Your task to perform on an android device: Set the phone to "Do not disturb". Image 0: 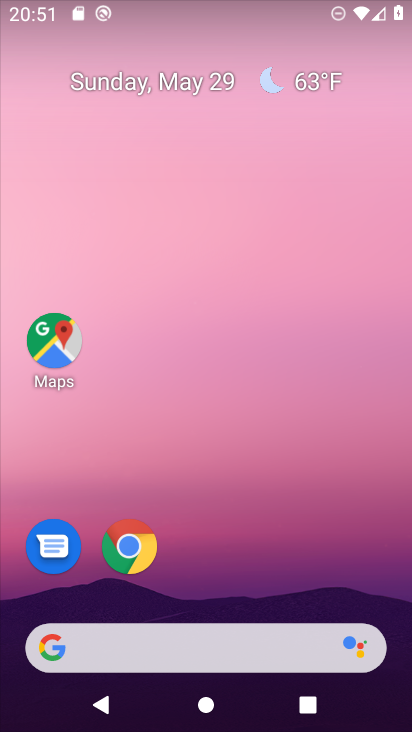
Step 0: press home button
Your task to perform on an android device: Set the phone to "Do not disturb". Image 1: 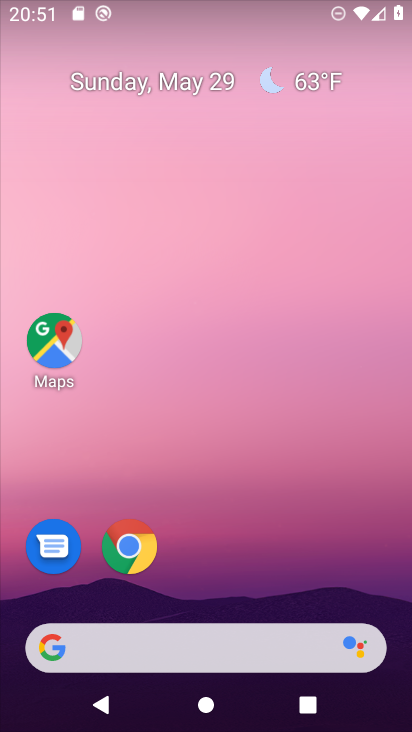
Step 1: drag from (220, 644) to (312, 186)
Your task to perform on an android device: Set the phone to "Do not disturb". Image 2: 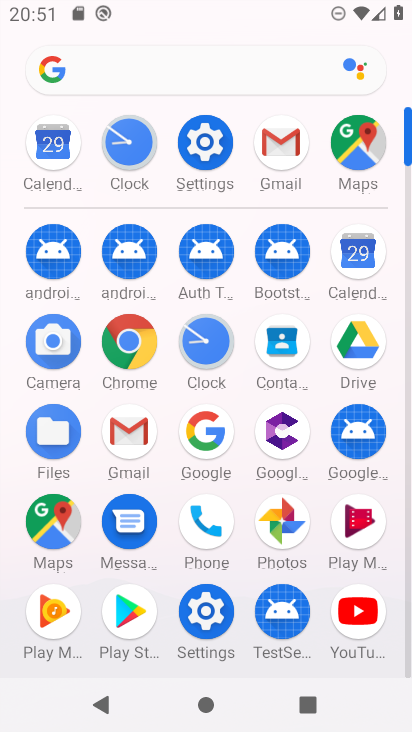
Step 2: click (213, 136)
Your task to perform on an android device: Set the phone to "Do not disturb". Image 3: 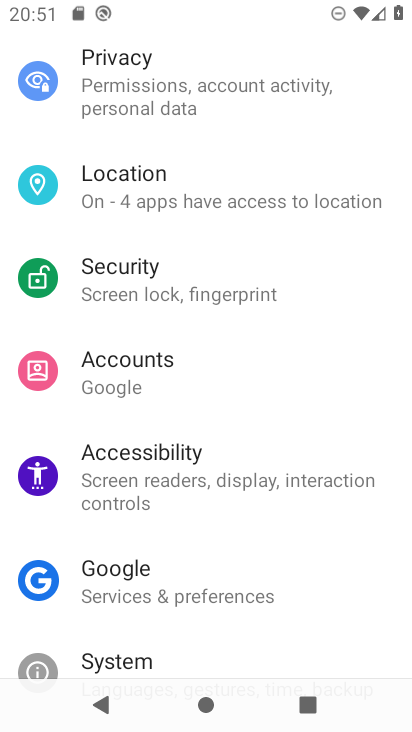
Step 3: drag from (221, 637) to (309, 201)
Your task to perform on an android device: Set the phone to "Do not disturb". Image 4: 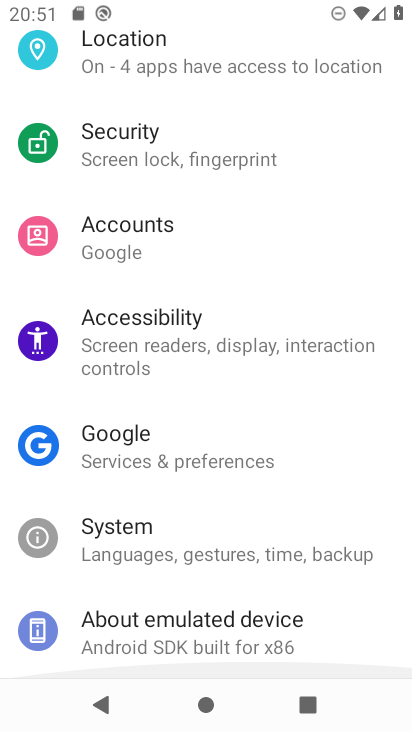
Step 4: drag from (302, 192) to (186, 645)
Your task to perform on an android device: Set the phone to "Do not disturb". Image 5: 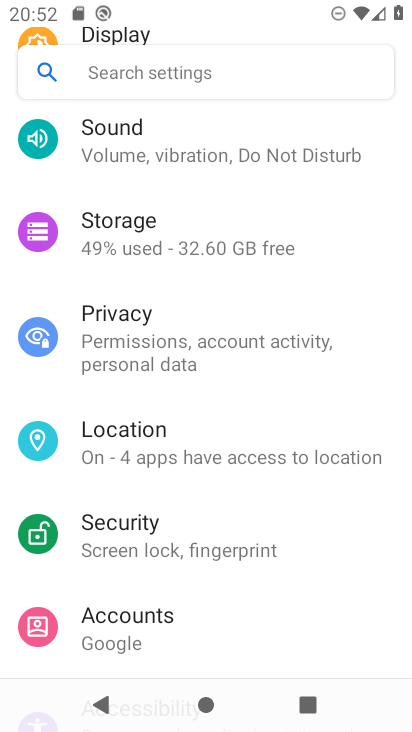
Step 5: click (186, 138)
Your task to perform on an android device: Set the phone to "Do not disturb". Image 6: 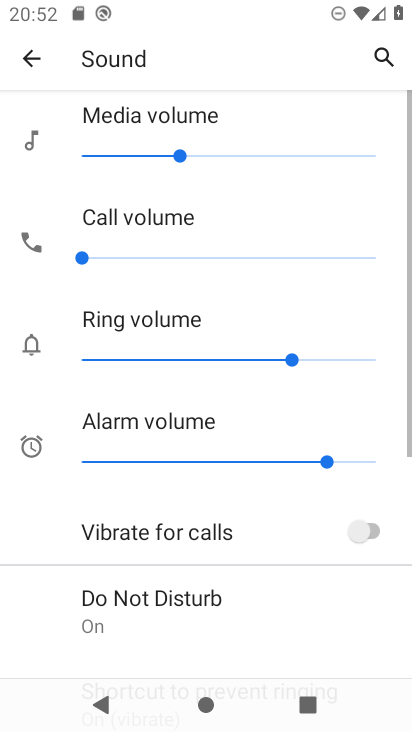
Step 6: click (167, 604)
Your task to perform on an android device: Set the phone to "Do not disturb". Image 7: 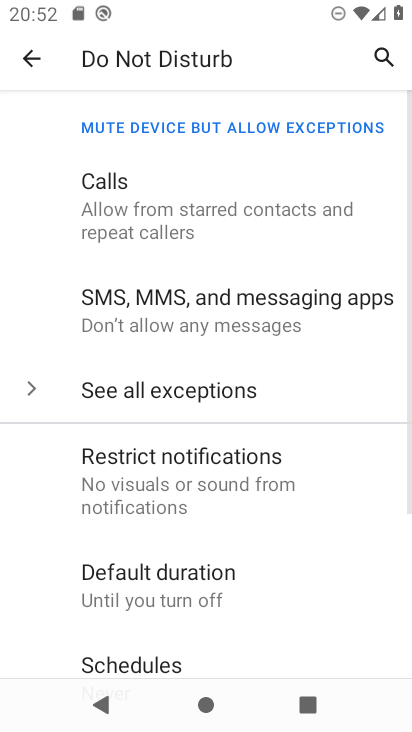
Step 7: task complete